Your task to perform on an android device: Toggle the flashlight Image 0: 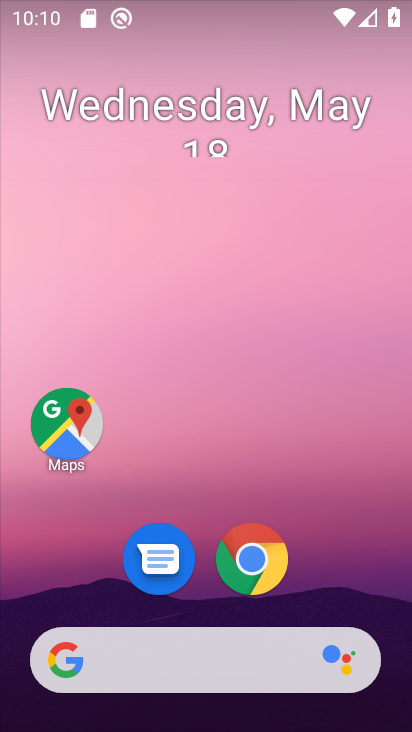
Step 0: drag from (210, 598) to (245, 154)
Your task to perform on an android device: Toggle the flashlight Image 1: 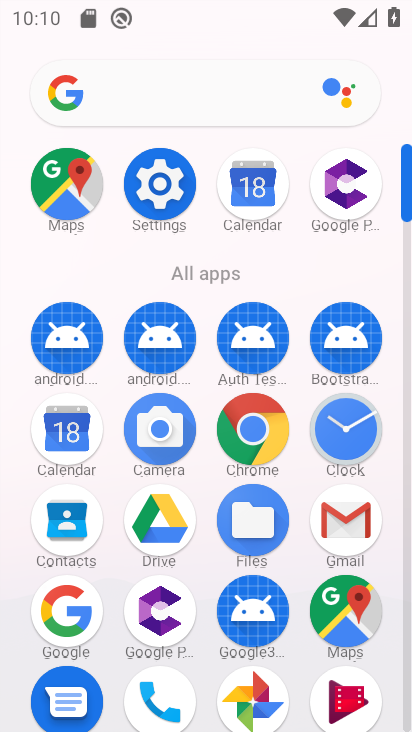
Step 1: click (158, 181)
Your task to perform on an android device: Toggle the flashlight Image 2: 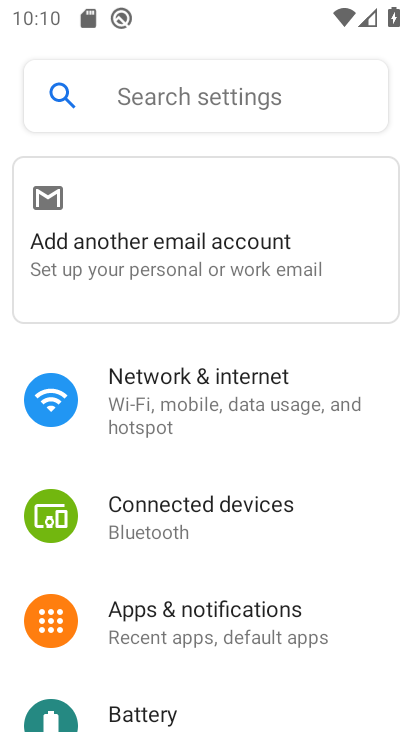
Step 2: click (173, 104)
Your task to perform on an android device: Toggle the flashlight Image 3: 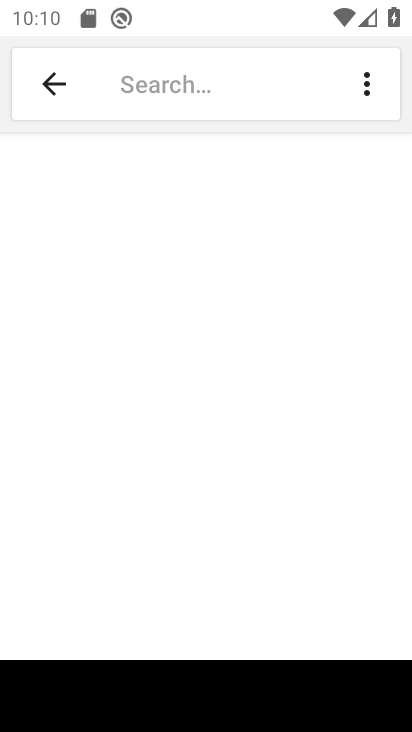
Step 3: type "flashlight"
Your task to perform on an android device: Toggle the flashlight Image 4: 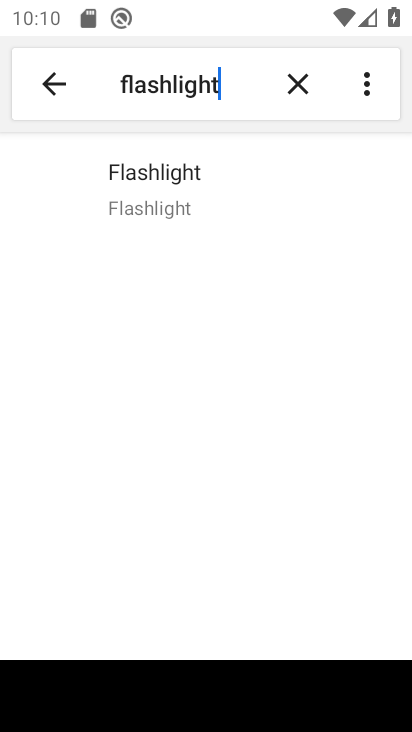
Step 4: click (156, 177)
Your task to perform on an android device: Toggle the flashlight Image 5: 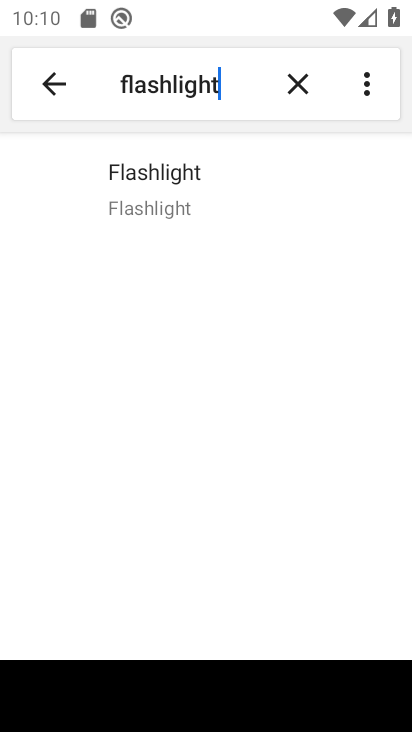
Step 5: click (150, 186)
Your task to perform on an android device: Toggle the flashlight Image 6: 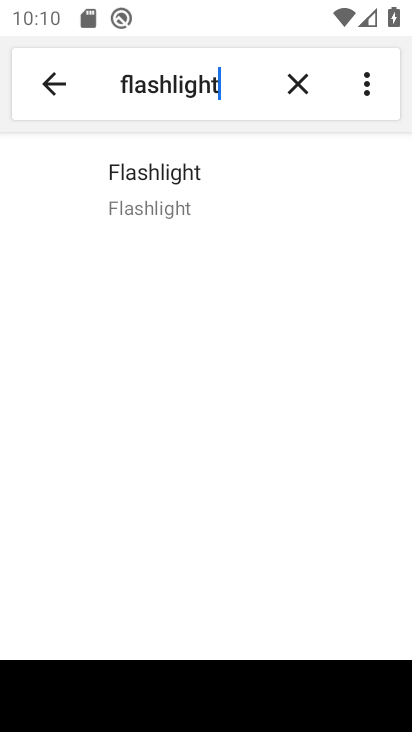
Step 6: task complete